Your task to perform on an android device: empty trash in the gmail app Image 0: 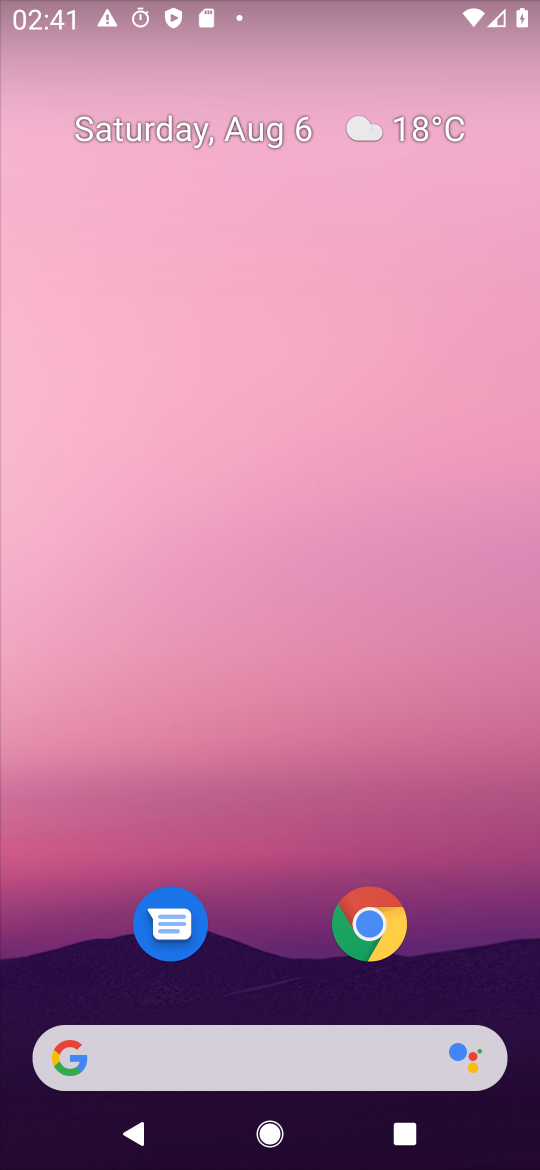
Step 0: drag from (375, 1058) to (373, 345)
Your task to perform on an android device: empty trash in the gmail app Image 1: 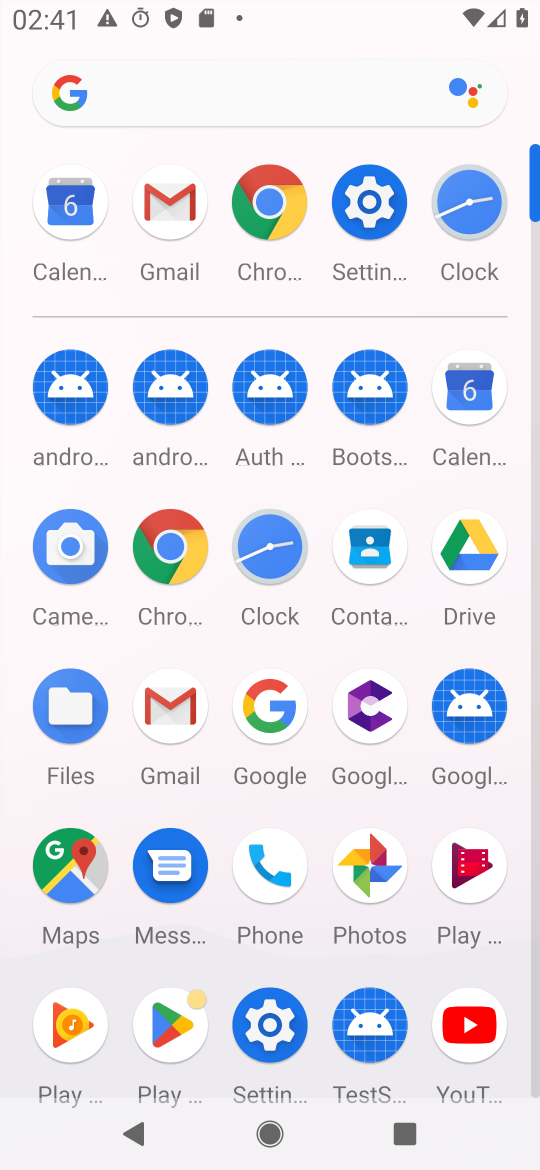
Step 1: click (167, 702)
Your task to perform on an android device: empty trash in the gmail app Image 2: 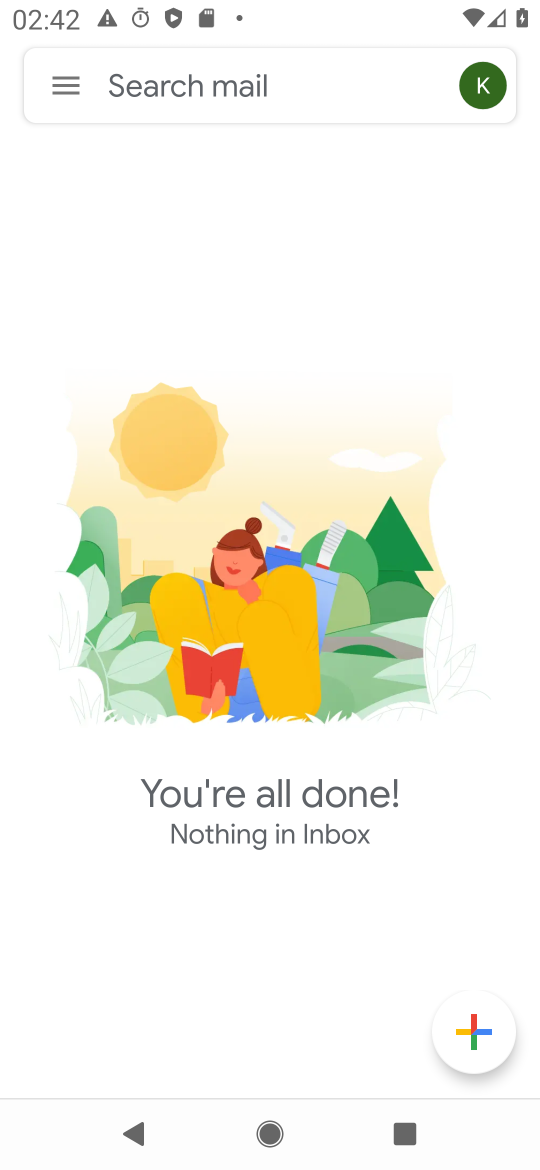
Step 2: click (72, 74)
Your task to perform on an android device: empty trash in the gmail app Image 3: 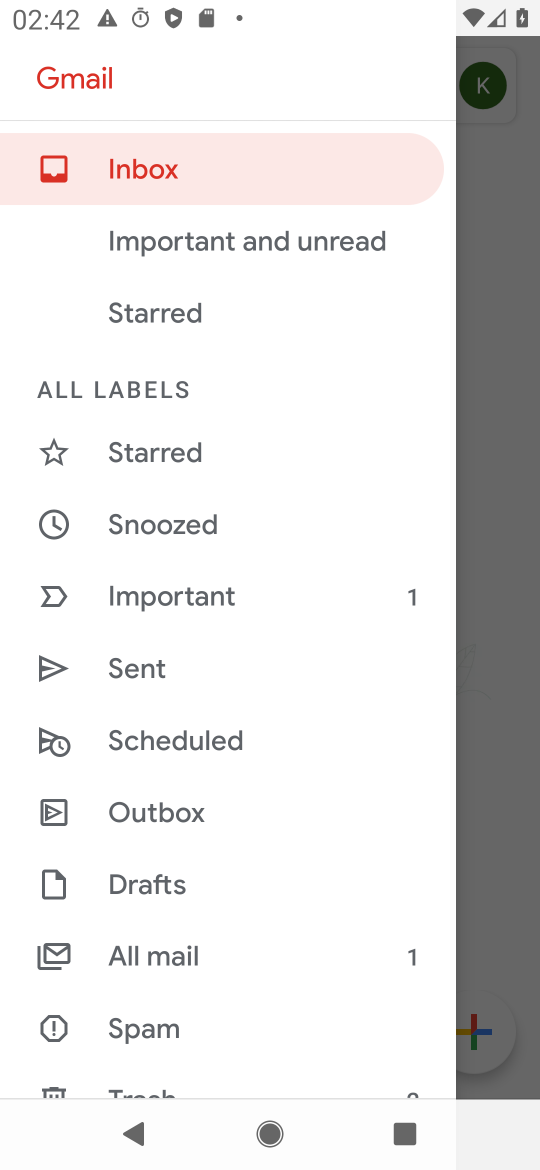
Step 3: click (158, 1088)
Your task to perform on an android device: empty trash in the gmail app Image 4: 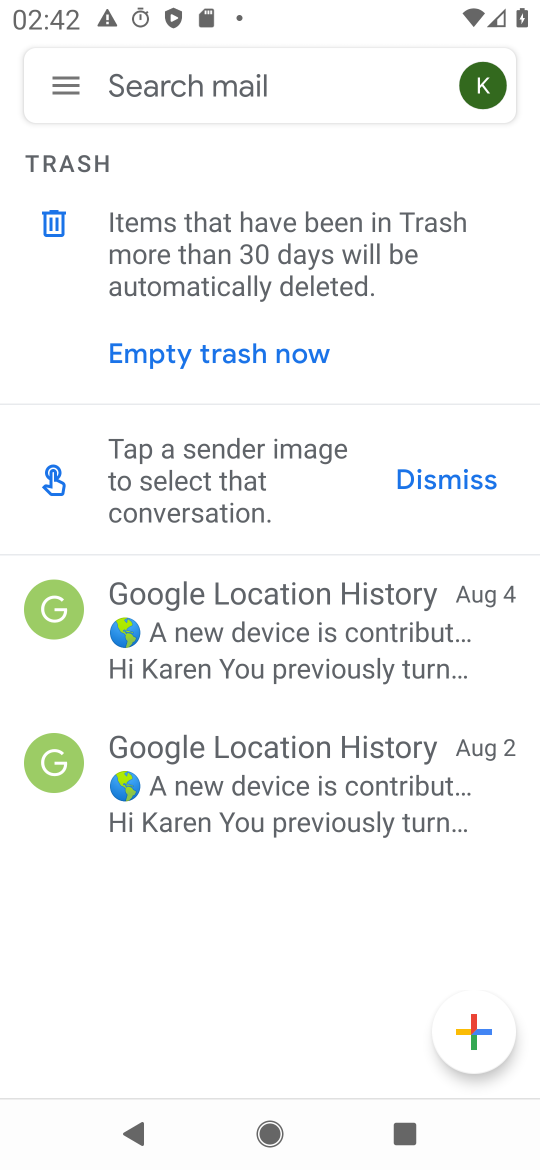
Step 4: click (269, 351)
Your task to perform on an android device: empty trash in the gmail app Image 5: 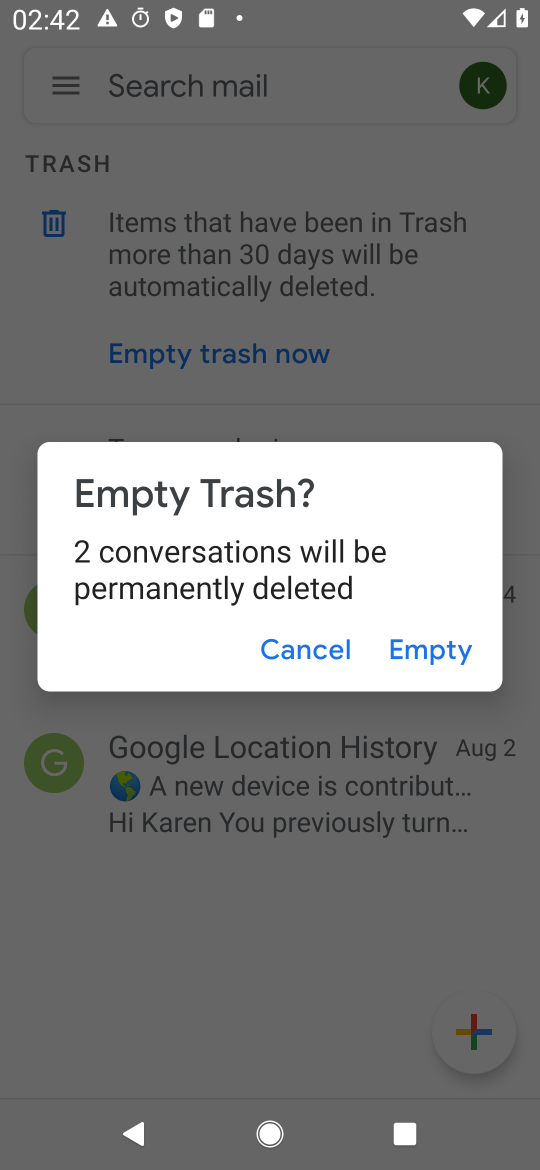
Step 5: click (449, 641)
Your task to perform on an android device: empty trash in the gmail app Image 6: 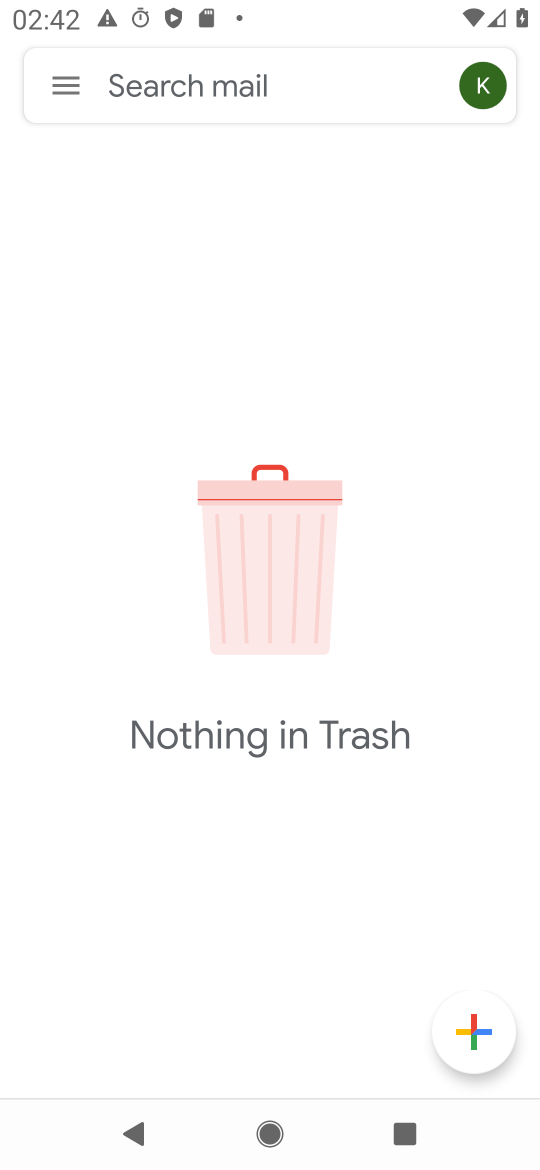
Step 6: task complete